Your task to perform on an android device: toggle airplane mode Image 0: 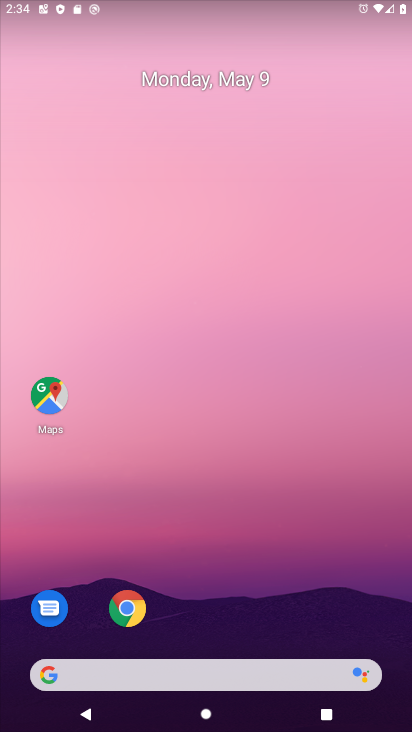
Step 0: drag from (229, 14) to (276, 606)
Your task to perform on an android device: toggle airplane mode Image 1: 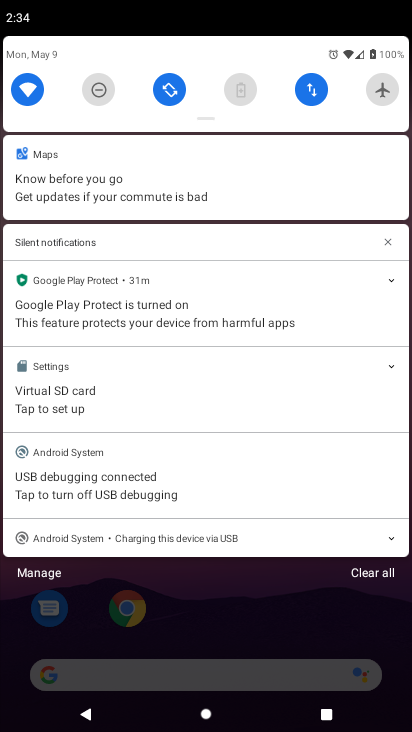
Step 1: click (382, 90)
Your task to perform on an android device: toggle airplane mode Image 2: 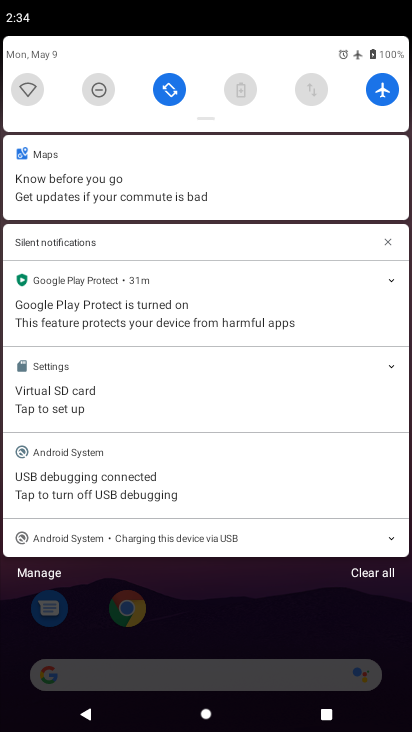
Step 2: click (382, 90)
Your task to perform on an android device: toggle airplane mode Image 3: 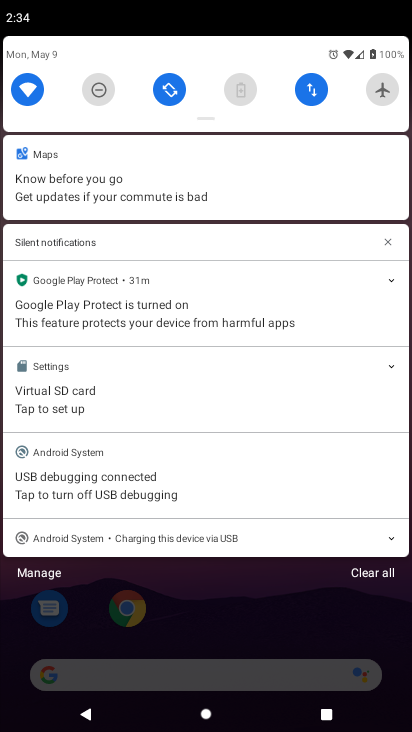
Step 3: task complete